Your task to perform on an android device: turn off location history Image 0: 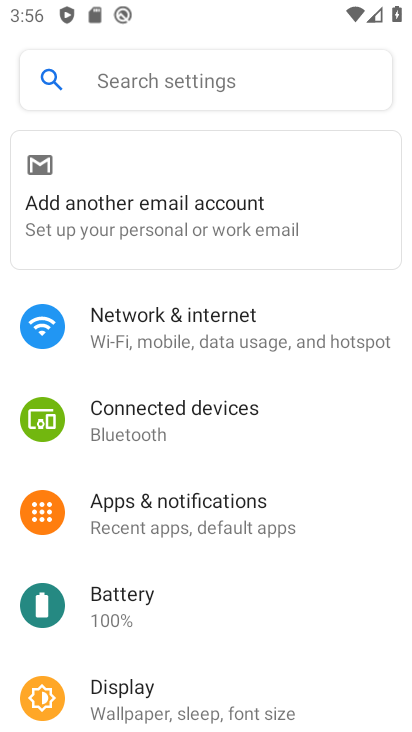
Step 0: click (194, 90)
Your task to perform on an android device: turn off location history Image 1: 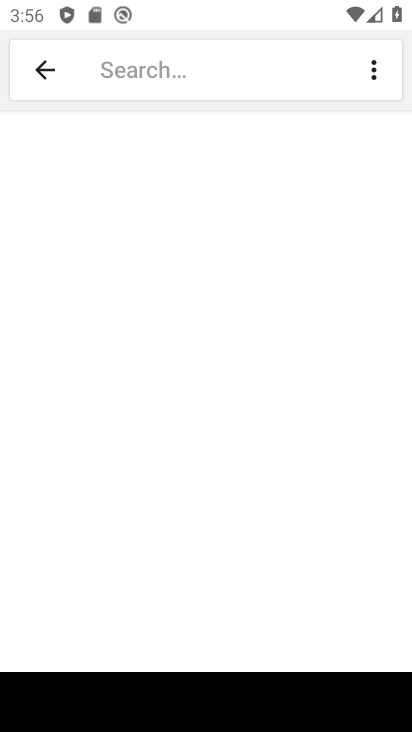
Step 1: click (381, 700)
Your task to perform on an android device: turn off location history Image 2: 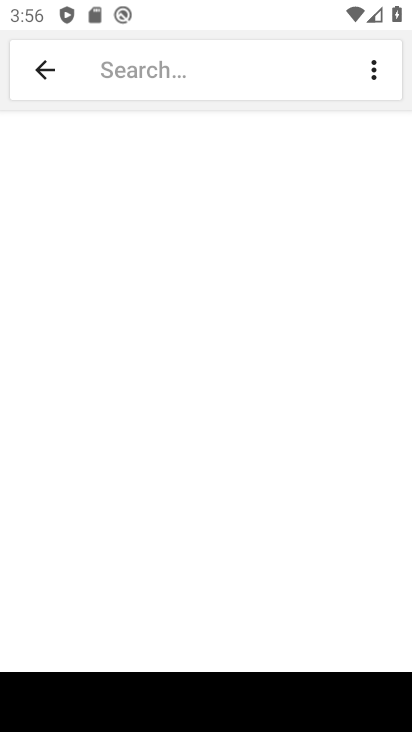
Step 2: drag from (377, 717) to (373, 671)
Your task to perform on an android device: turn off location history Image 3: 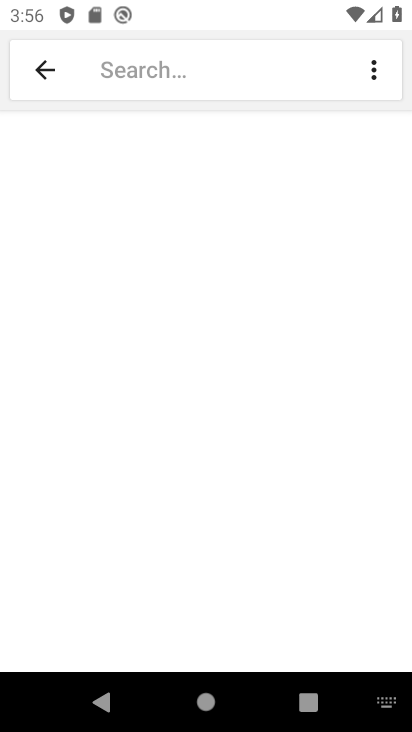
Step 3: click (399, 711)
Your task to perform on an android device: turn off location history Image 4: 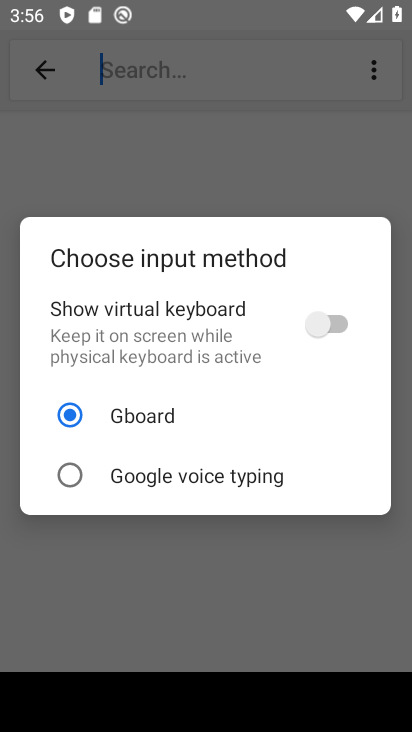
Step 4: click (340, 325)
Your task to perform on an android device: turn off location history Image 5: 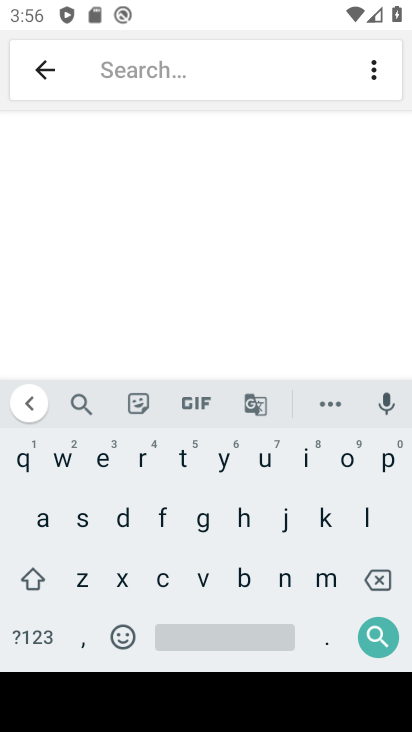
Step 5: click (370, 512)
Your task to perform on an android device: turn off location history Image 6: 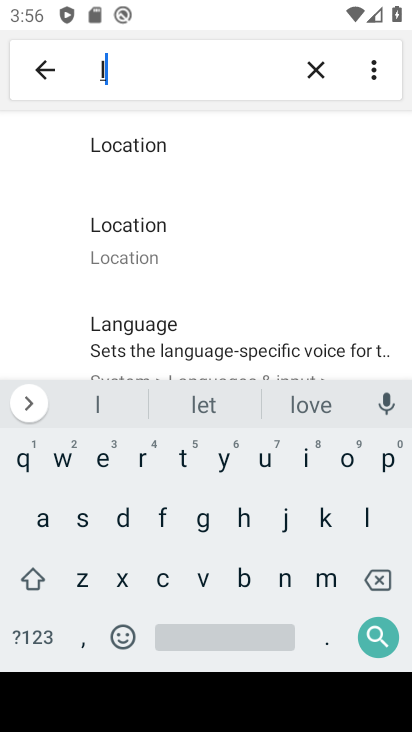
Step 6: click (133, 241)
Your task to perform on an android device: turn off location history Image 7: 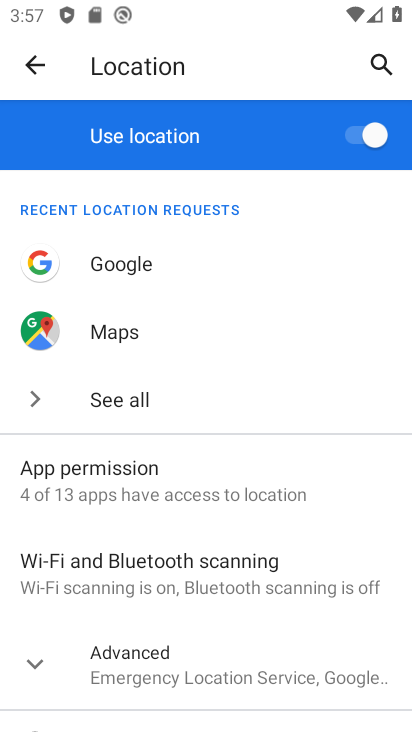
Step 7: click (28, 649)
Your task to perform on an android device: turn off location history Image 8: 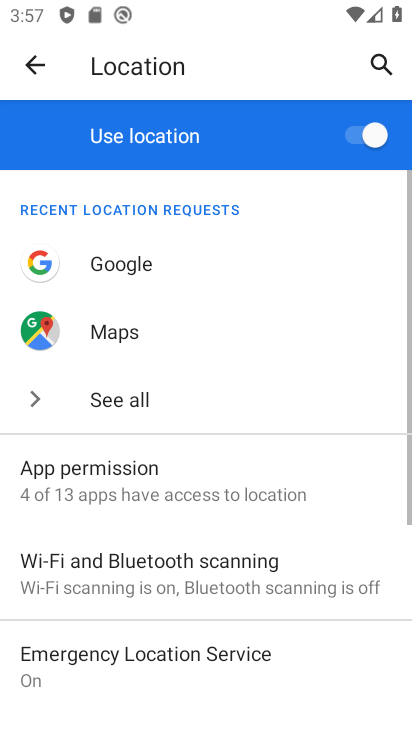
Step 8: drag from (217, 615) to (278, 384)
Your task to perform on an android device: turn off location history Image 9: 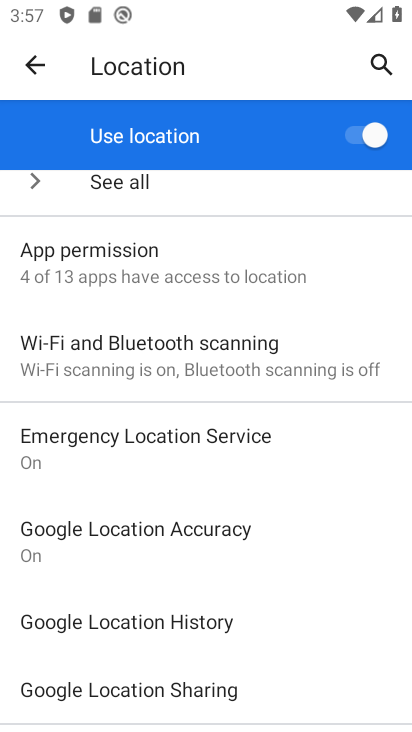
Step 9: click (169, 618)
Your task to perform on an android device: turn off location history Image 10: 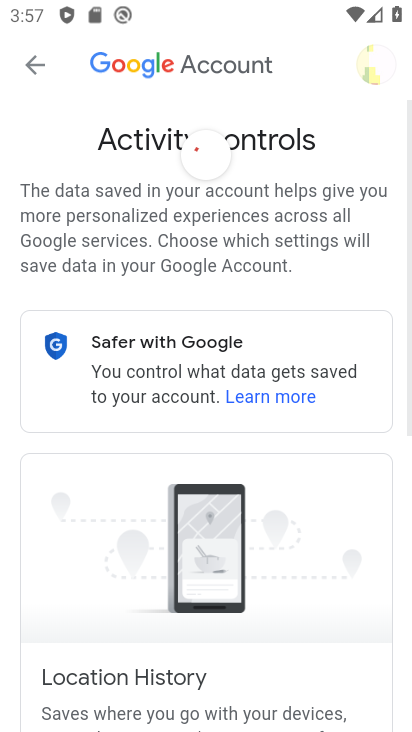
Step 10: task complete